Your task to perform on an android device: turn pop-ups on in chrome Image 0: 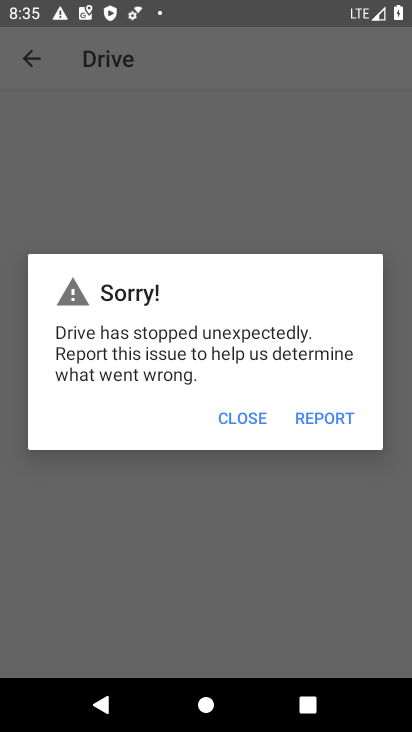
Step 0: press home button
Your task to perform on an android device: turn pop-ups on in chrome Image 1: 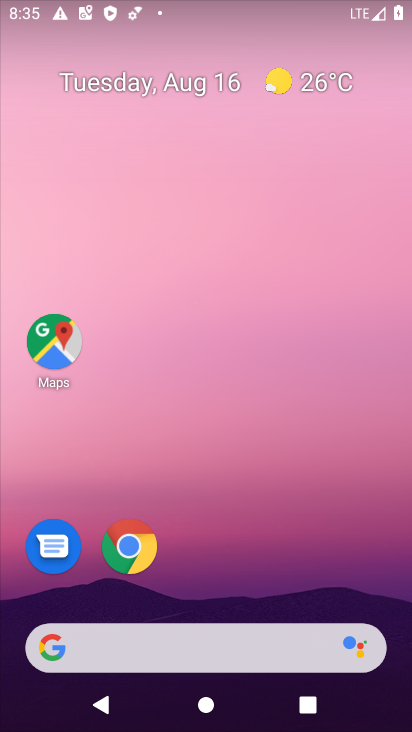
Step 1: click (127, 540)
Your task to perform on an android device: turn pop-ups on in chrome Image 2: 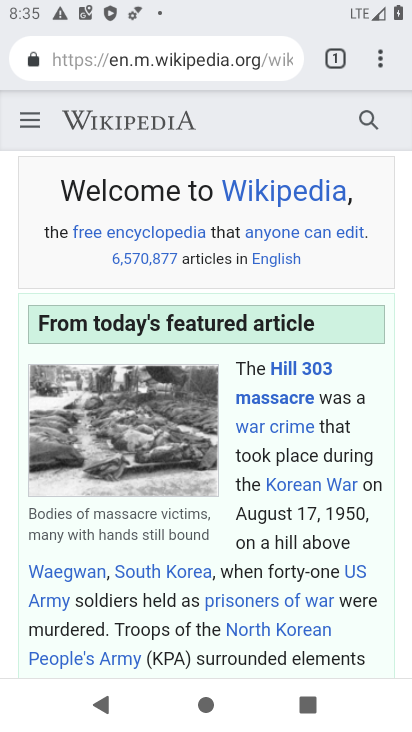
Step 2: click (373, 58)
Your task to perform on an android device: turn pop-ups on in chrome Image 3: 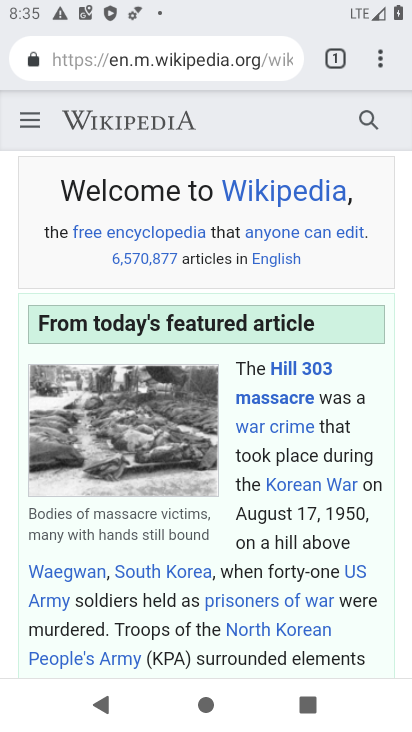
Step 3: press back button
Your task to perform on an android device: turn pop-ups on in chrome Image 4: 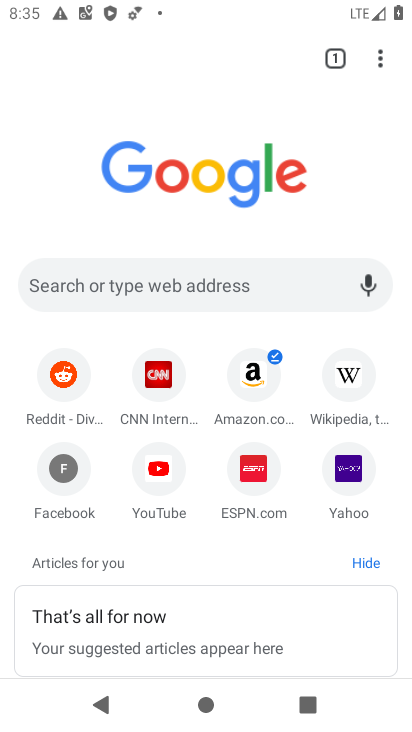
Step 4: click (377, 52)
Your task to perform on an android device: turn pop-ups on in chrome Image 5: 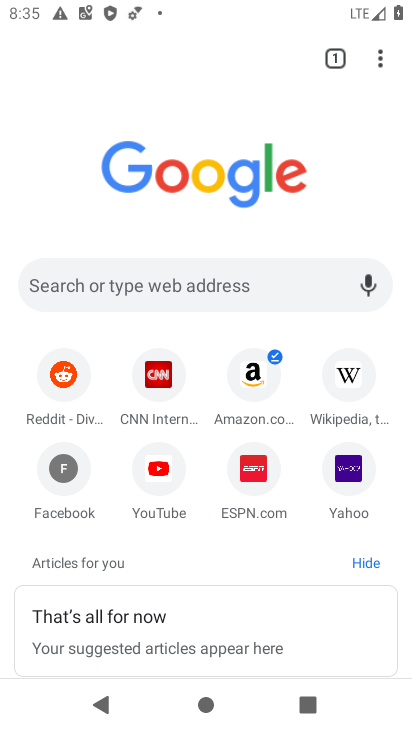
Step 5: click (377, 53)
Your task to perform on an android device: turn pop-ups on in chrome Image 6: 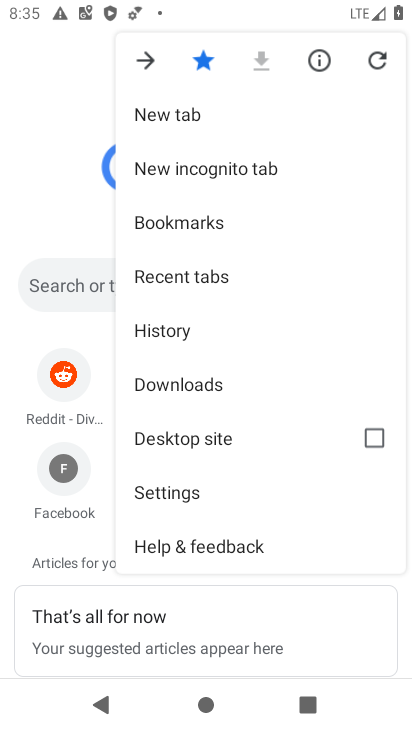
Step 6: click (181, 495)
Your task to perform on an android device: turn pop-ups on in chrome Image 7: 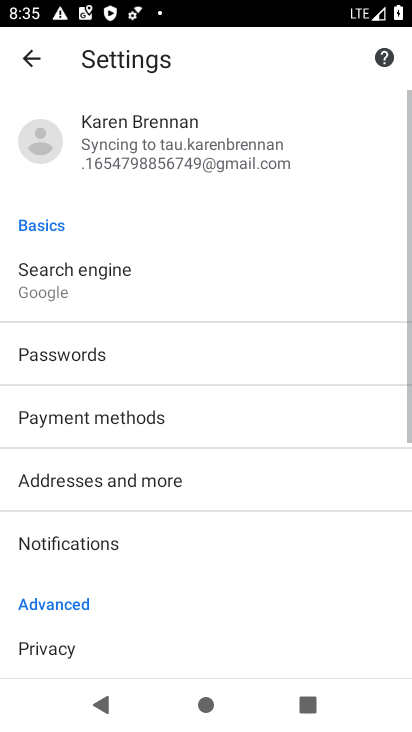
Step 7: drag from (198, 549) to (244, 44)
Your task to perform on an android device: turn pop-ups on in chrome Image 8: 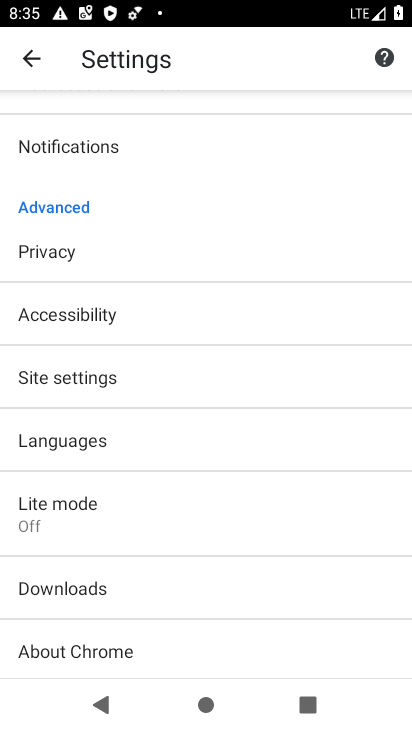
Step 8: click (128, 377)
Your task to perform on an android device: turn pop-ups on in chrome Image 9: 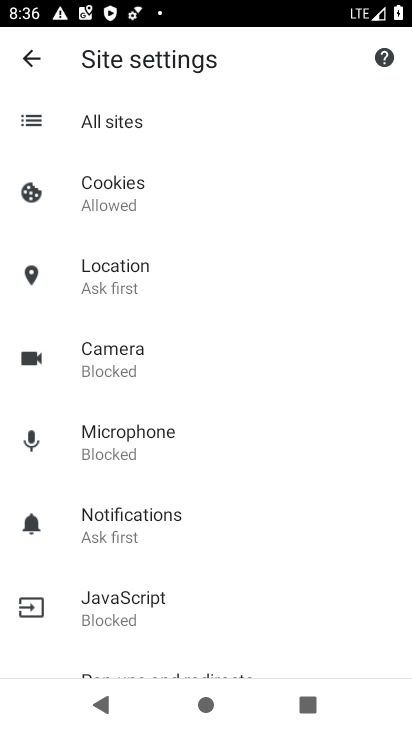
Step 9: drag from (250, 560) to (266, 275)
Your task to perform on an android device: turn pop-ups on in chrome Image 10: 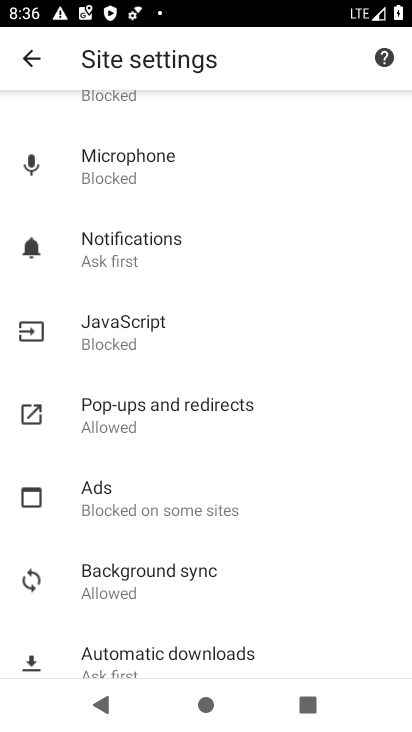
Step 10: click (226, 395)
Your task to perform on an android device: turn pop-ups on in chrome Image 11: 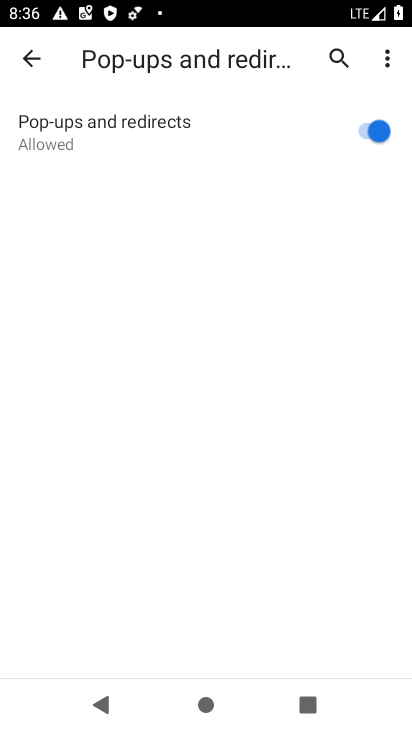
Step 11: task complete